Your task to perform on an android device: What's the weather going to be this weekend? Image 0: 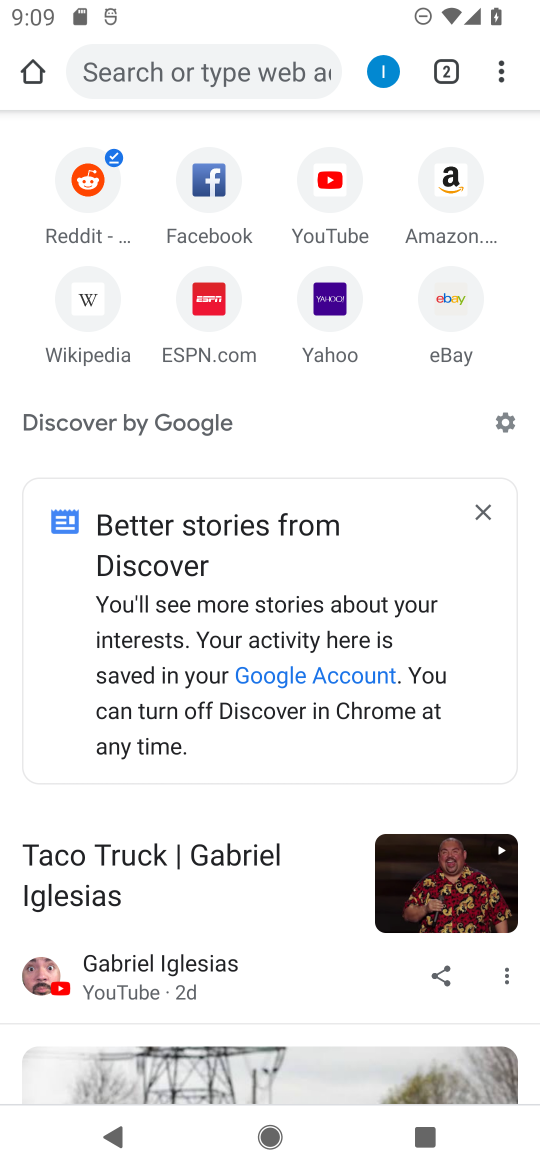
Step 0: press home button
Your task to perform on an android device: What's the weather going to be this weekend? Image 1: 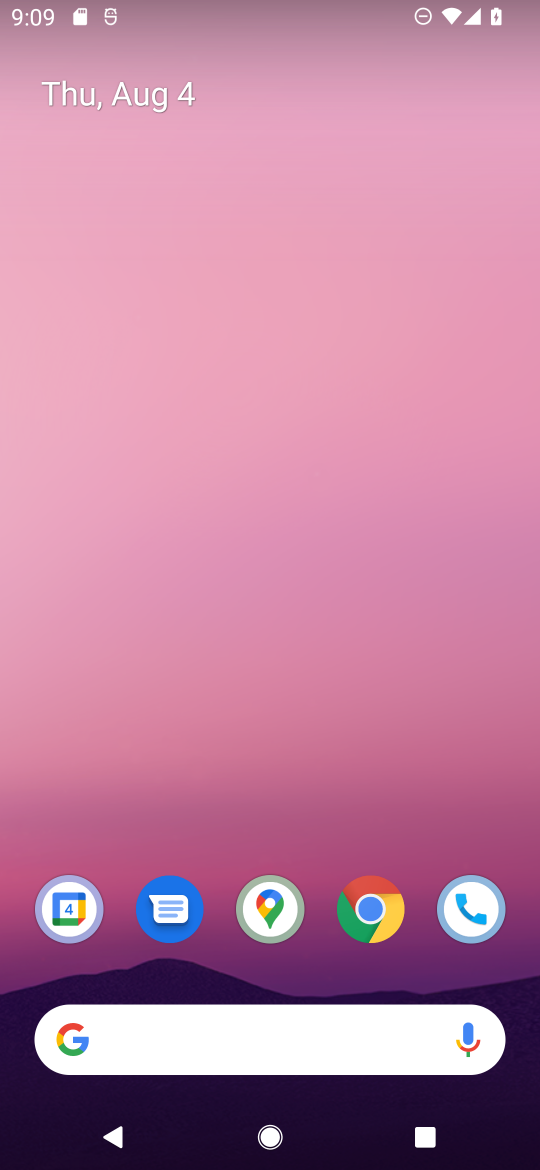
Step 1: click (280, 1045)
Your task to perform on an android device: What's the weather going to be this weekend? Image 2: 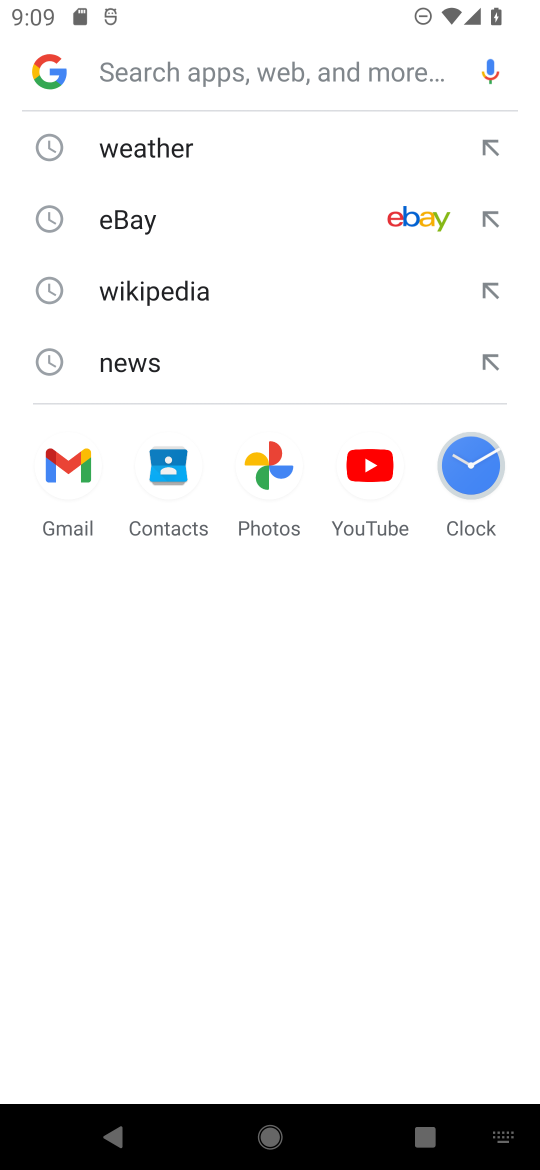
Step 2: click (194, 148)
Your task to perform on an android device: What's the weather going to be this weekend? Image 3: 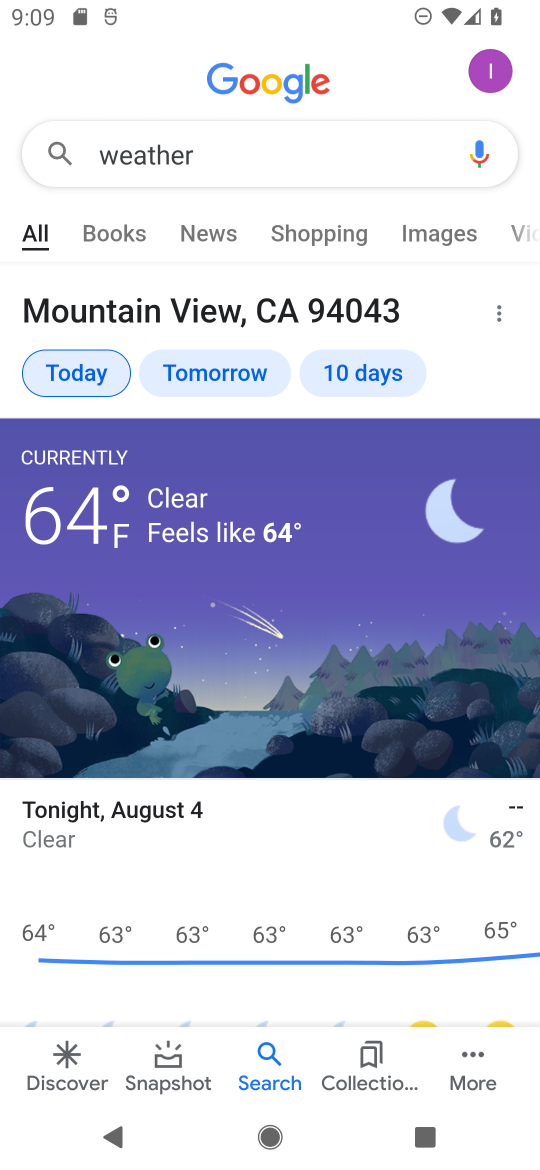
Step 3: click (368, 375)
Your task to perform on an android device: What's the weather going to be this weekend? Image 4: 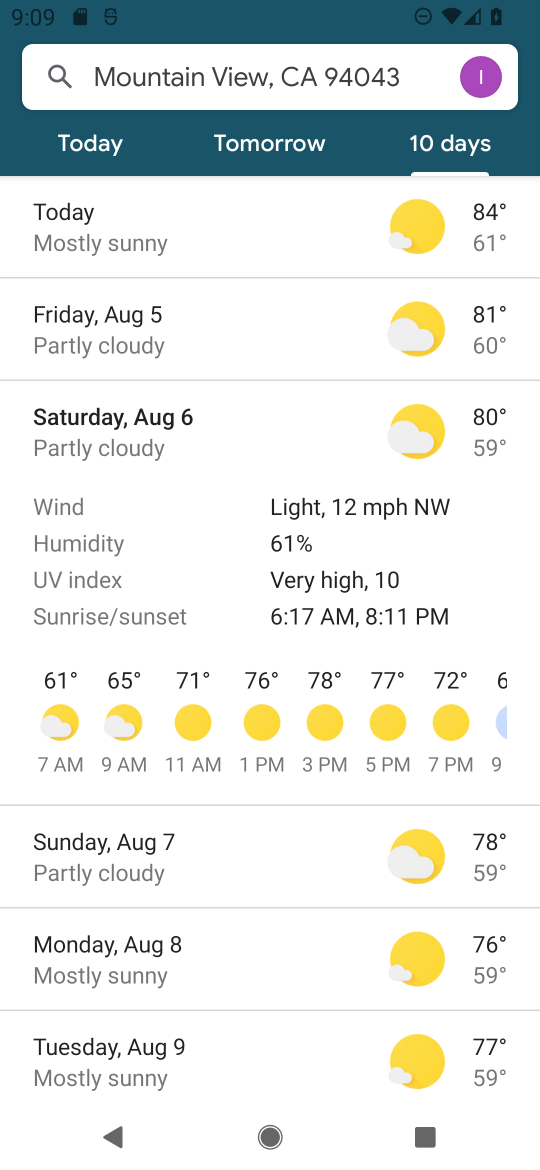
Step 4: task complete